Your task to perform on an android device: What's the weather? Image 0: 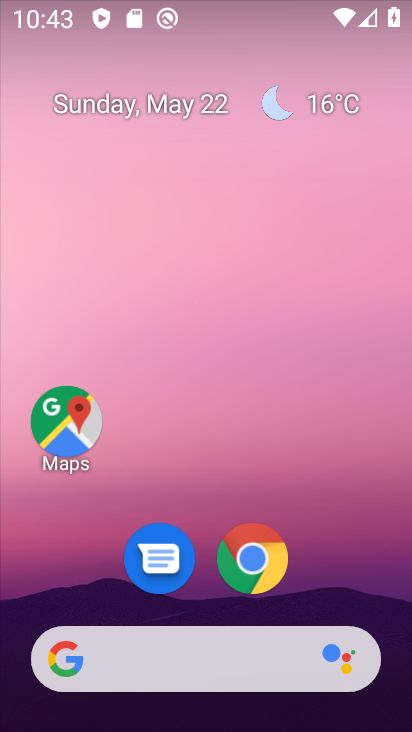
Step 0: click (332, 108)
Your task to perform on an android device: What's the weather? Image 1: 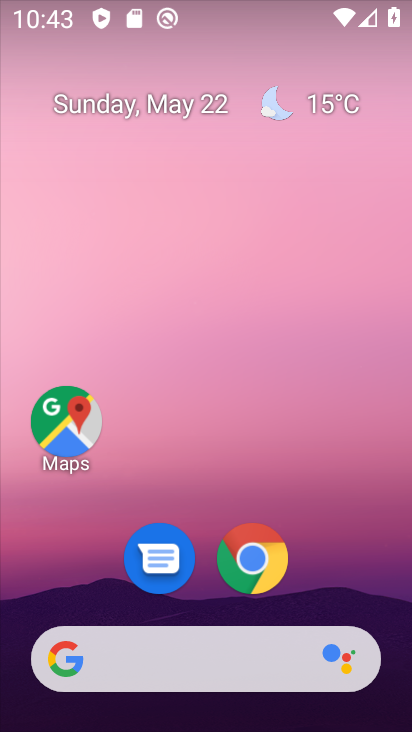
Step 1: click (319, 117)
Your task to perform on an android device: What's the weather? Image 2: 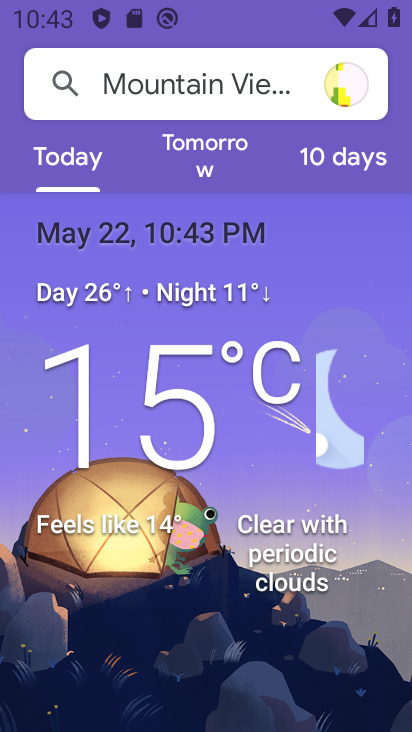
Step 2: task complete